Your task to perform on an android device: toggle notification dots Image 0: 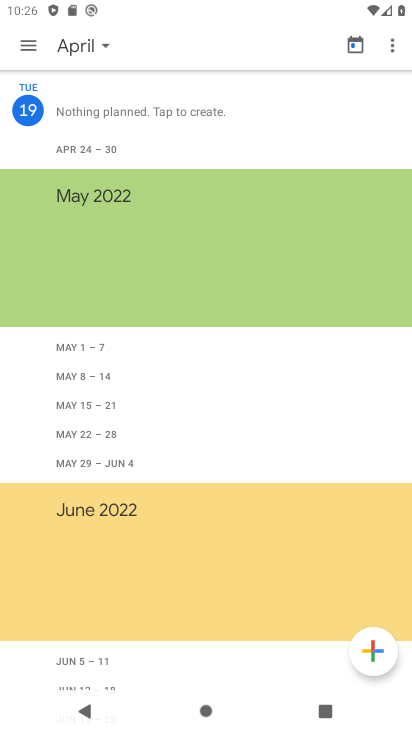
Step 0: drag from (195, 10) to (66, 713)
Your task to perform on an android device: toggle notification dots Image 1: 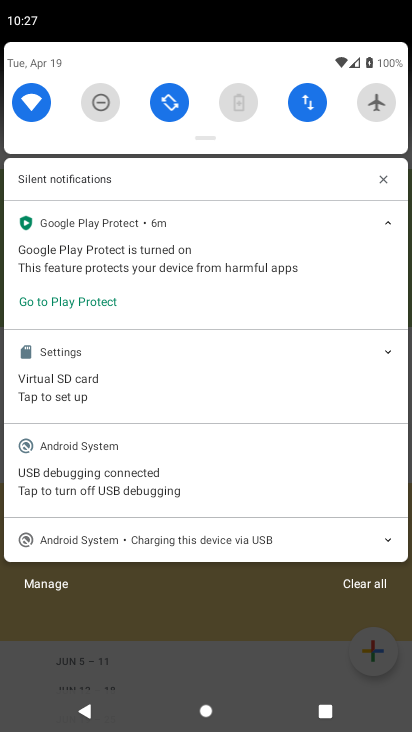
Step 1: drag from (154, 62) to (154, 622)
Your task to perform on an android device: toggle notification dots Image 2: 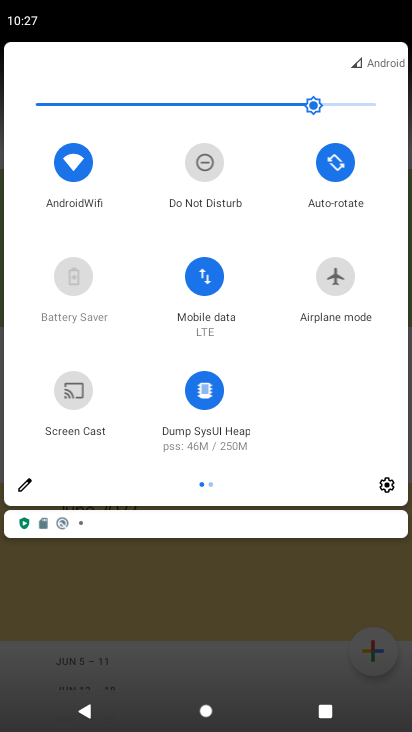
Step 2: click (386, 492)
Your task to perform on an android device: toggle notification dots Image 3: 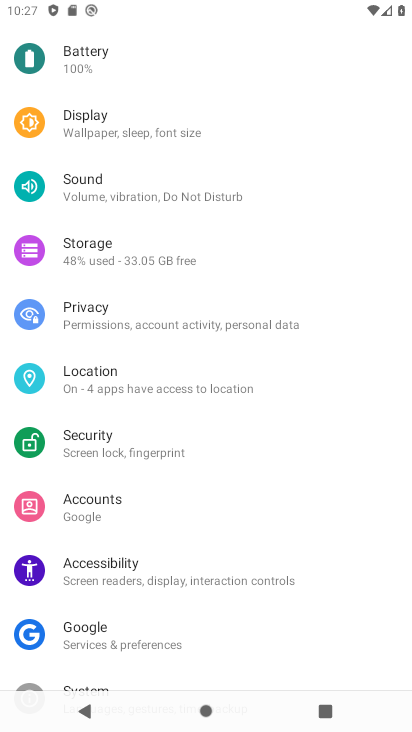
Step 3: drag from (111, 141) to (224, 624)
Your task to perform on an android device: toggle notification dots Image 4: 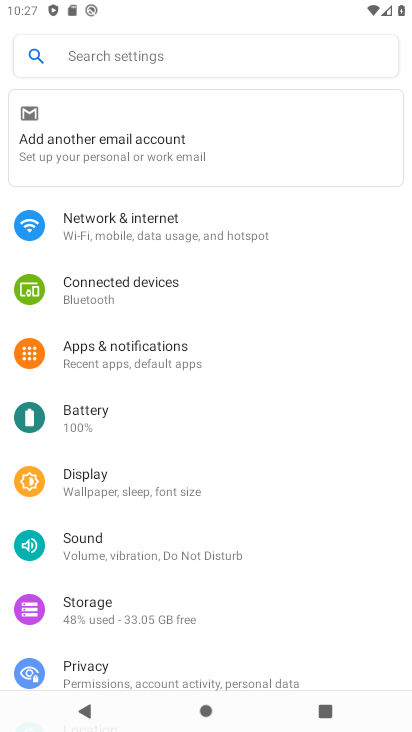
Step 4: click (134, 366)
Your task to perform on an android device: toggle notification dots Image 5: 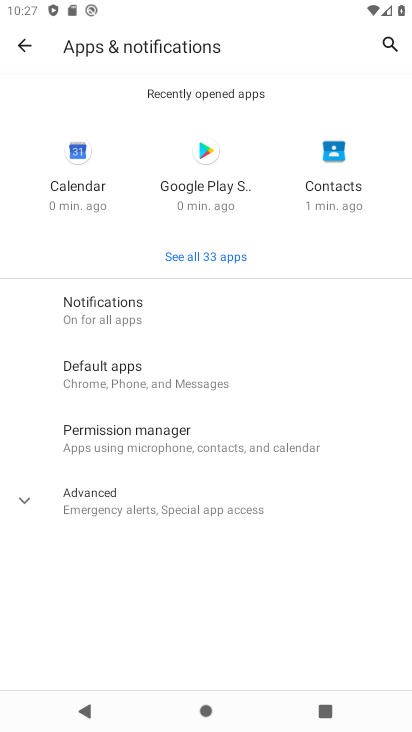
Step 5: click (102, 328)
Your task to perform on an android device: toggle notification dots Image 6: 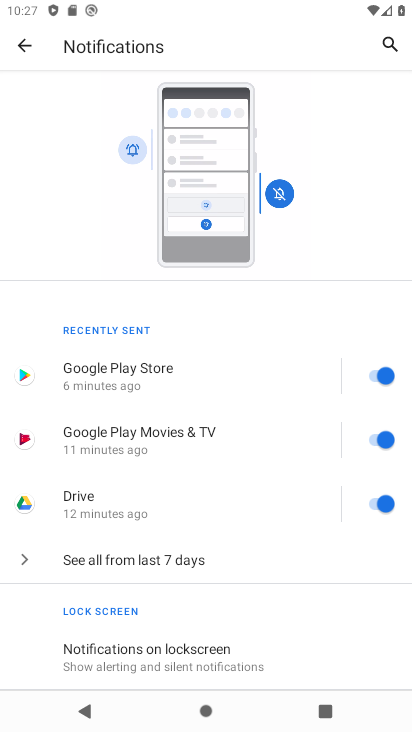
Step 6: drag from (157, 627) to (163, 115)
Your task to perform on an android device: toggle notification dots Image 7: 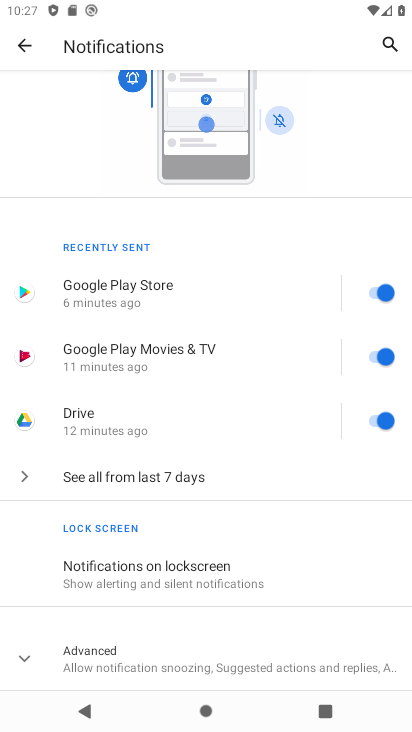
Step 7: click (155, 641)
Your task to perform on an android device: toggle notification dots Image 8: 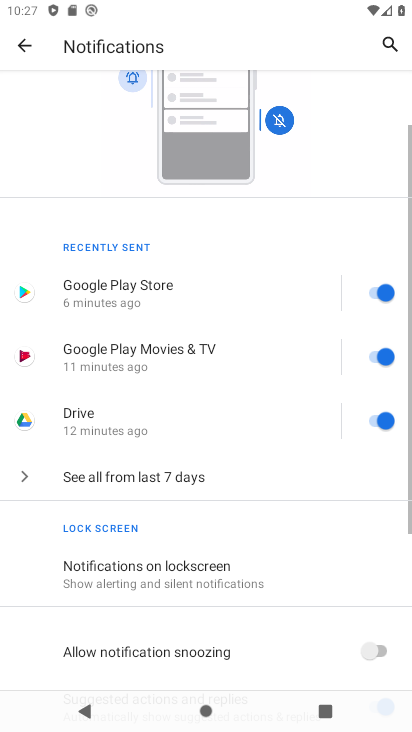
Step 8: drag from (167, 330) to (168, 151)
Your task to perform on an android device: toggle notification dots Image 9: 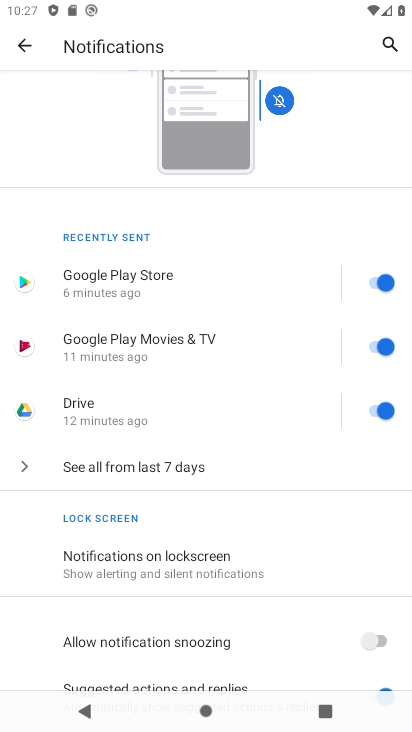
Step 9: drag from (150, 661) to (160, 144)
Your task to perform on an android device: toggle notification dots Image 10: 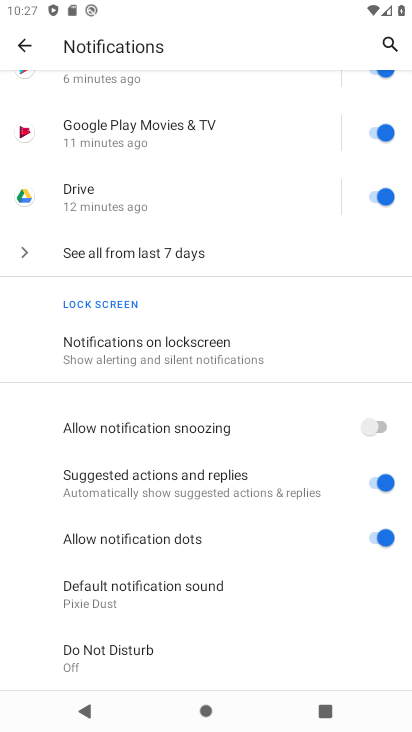
Step 10: click (382, 536)
Your task to perform on an android device: toggle notification dots Image 11: 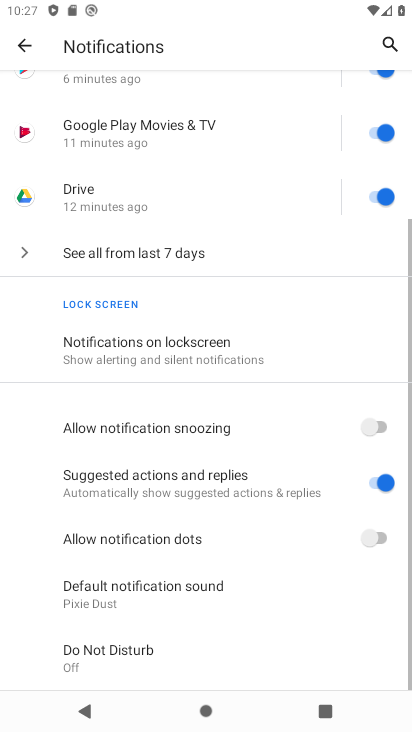
Step 11: click (382, 536)
Your task to perform on an android device: toggle notification dots Image 12: 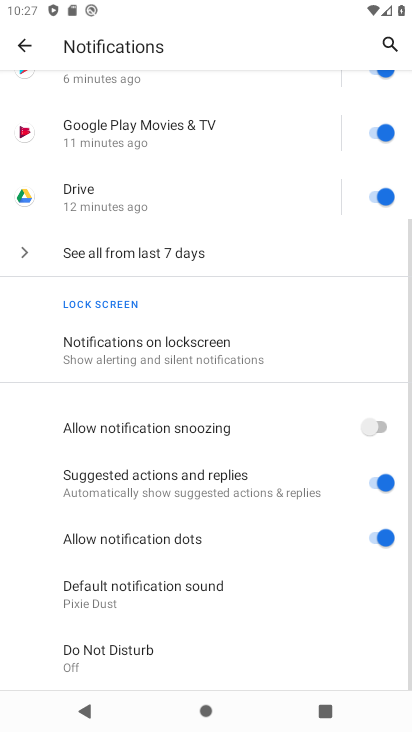
Step 12: task complete